Your task to perform on an android device: delete a single message in the gmail app Image 0: 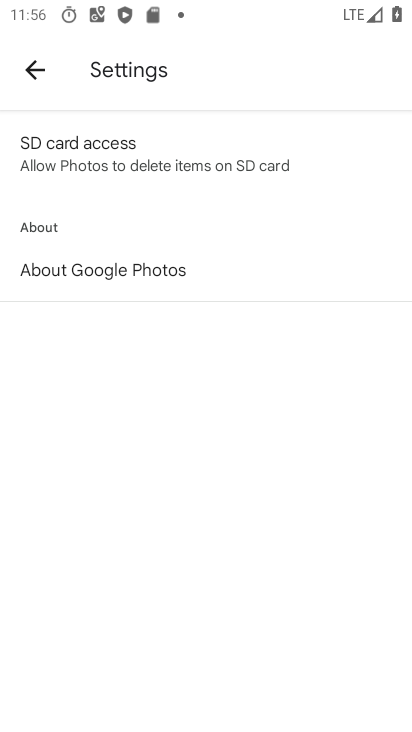
Step 0: press home button
Your task to perform on an android device: delete a single message in the gmail app Image 1: 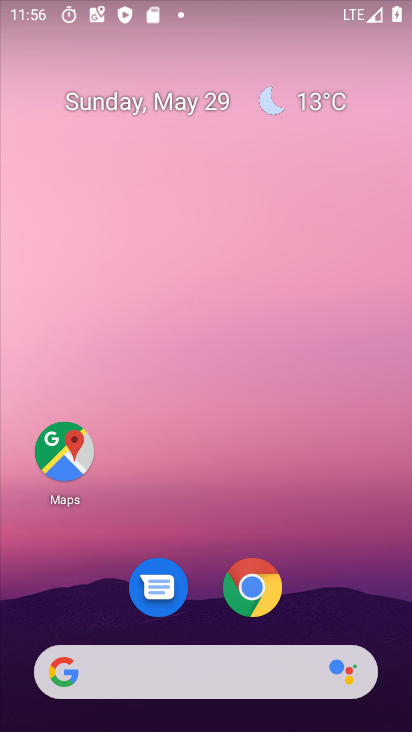
Step 1: drag from (365, 576) to (280, 41)
Your task to perform on an android device: delete a single message in the gmail app Image 2: 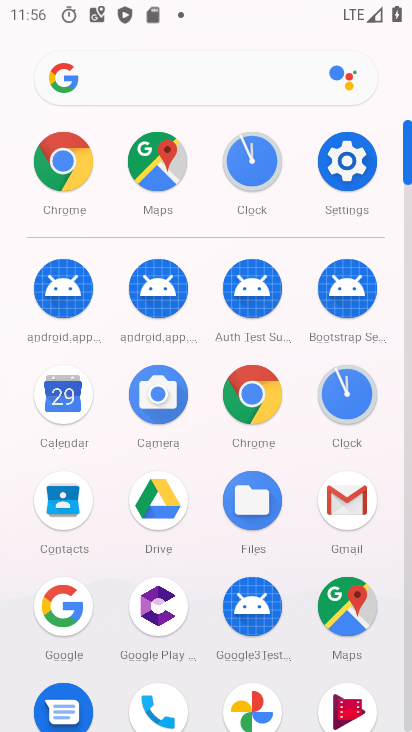
Step 2: click (347, 497)
Your task to perform on an android device: delete a single message in the gmail app Image 3: 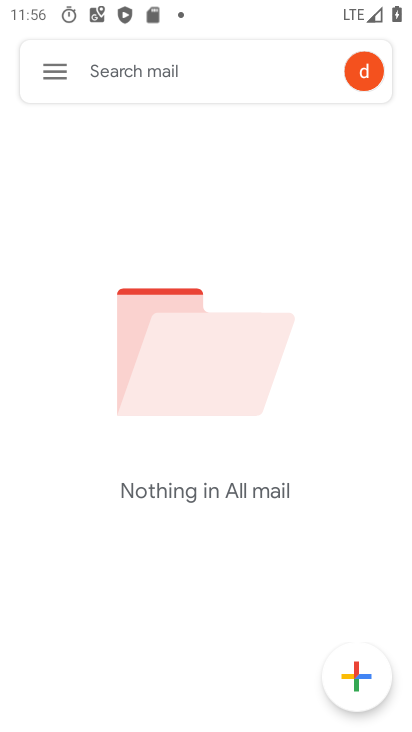
Step 3: click (45, 63)
Your task to perform on an android device: delete a single message in the gmail app Image 4: 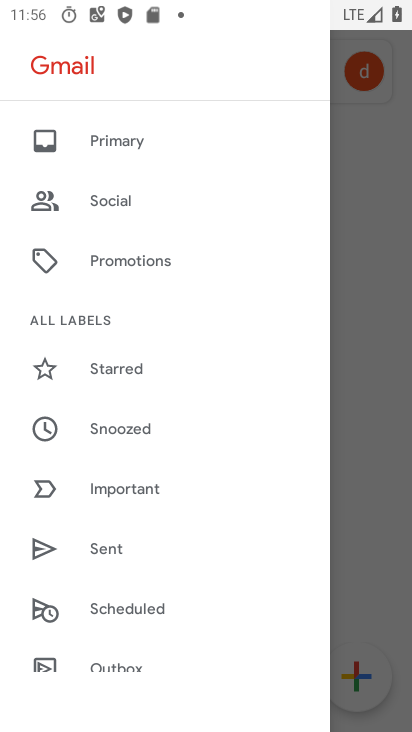
Step 4: drag from (126, 556) to (177, 40)
Your task to perform on an android device: delete a single message in the gmail app Image 5: 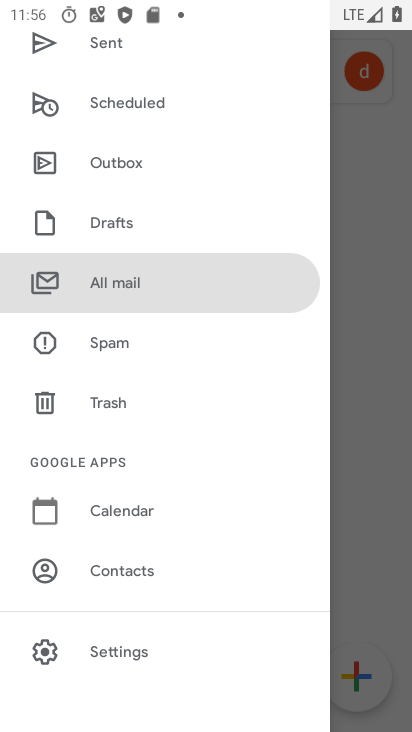
Step 5: click (405, 345)
Your task to perform on an android device: delete a single message in the gmail app Image 6: 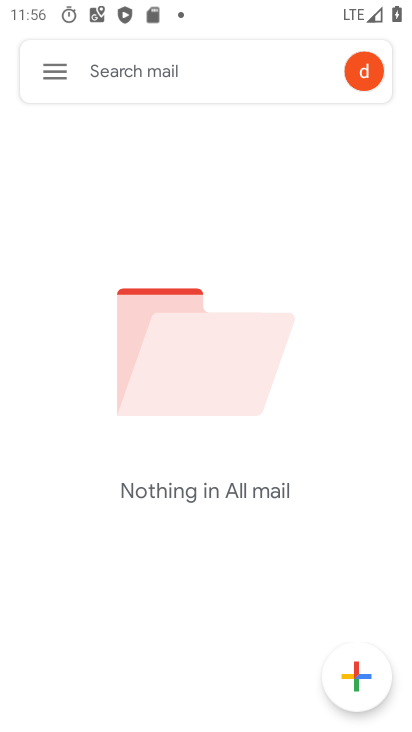
Step 6: task complete